Your task to perform on an android device: open sync settings in chrome Image 0: 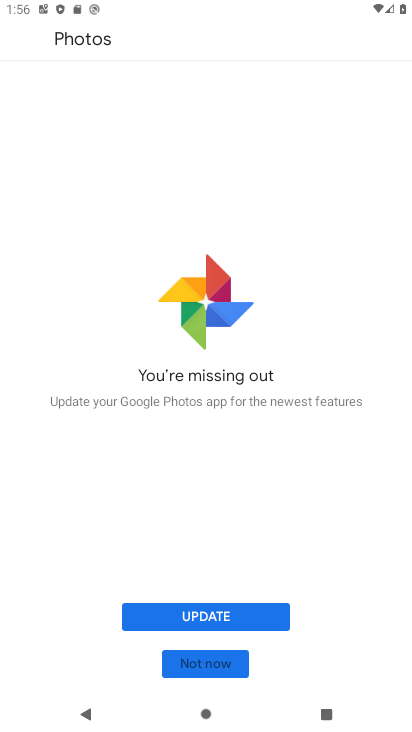
Step 0: press home button
Your task to perform on an android device: open sync settings in chrome Image 1: 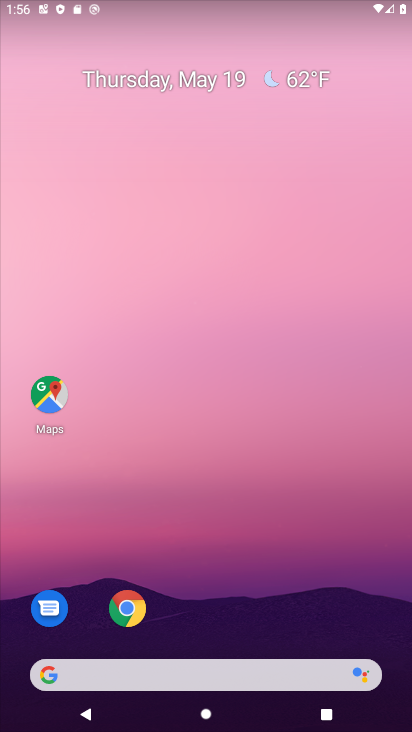
Step 1: click (128, 596)
Your task to perform on an android device: open sync settings in chrome Image 2: 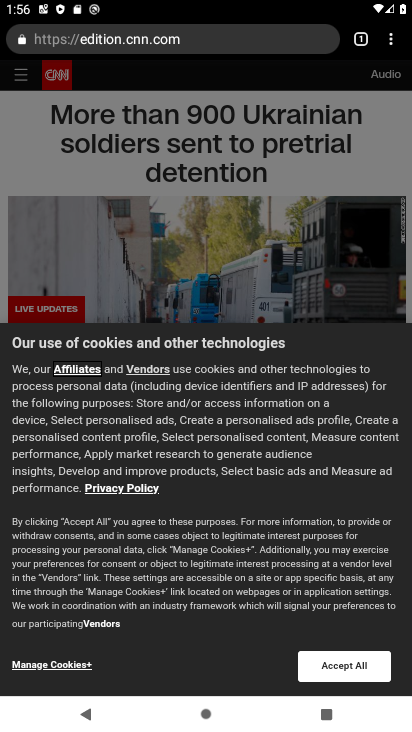
Step 2: click (394, 42)
Your task to perform on an android device: open sync settings in chrome Image 3: 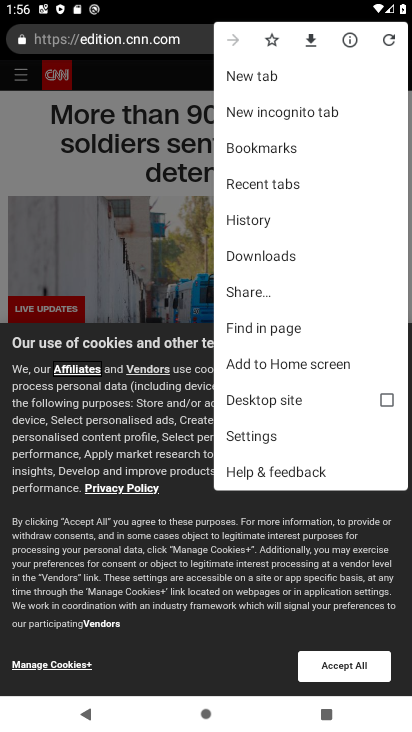
Step 3: click (251, 423)
Your task to perform on an android device: open sync settings in chrome Image 4: 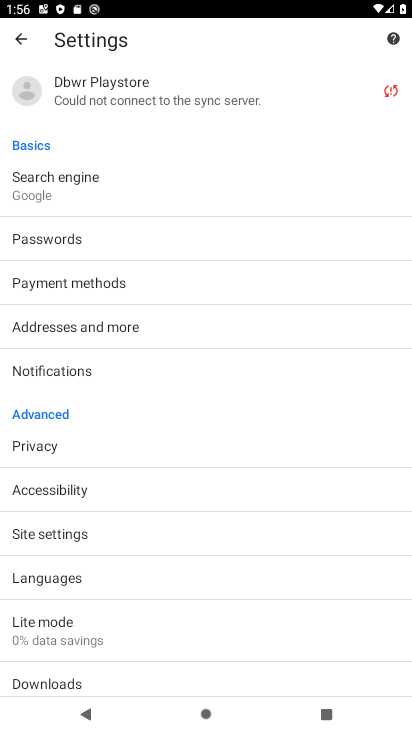
Step 4: drag from (156, 507) to (156, 411)
Your task to perform on an android device: open sync settings in chrome Image 5: 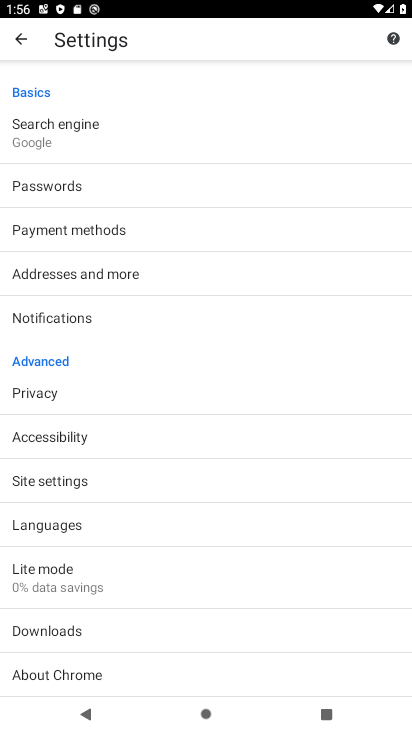
Step 5: drag from (179, 216) to (244, 692)
Your task to perform on an android device: open sync settings in chrome Image 6: 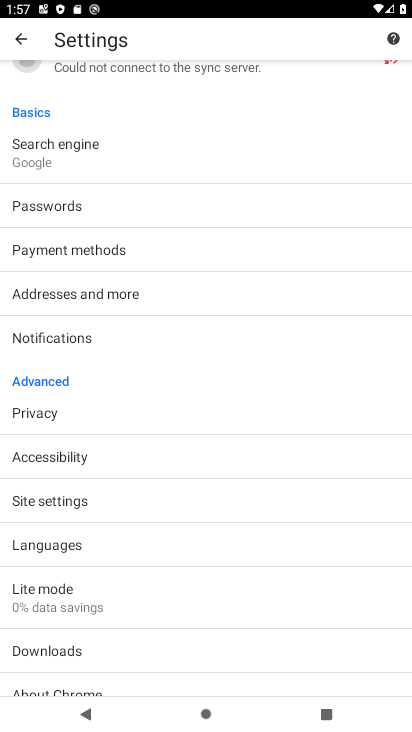
Step 6: click (190, 92)
Your task to perform on an android device: open sync settings in chrome Image 7: 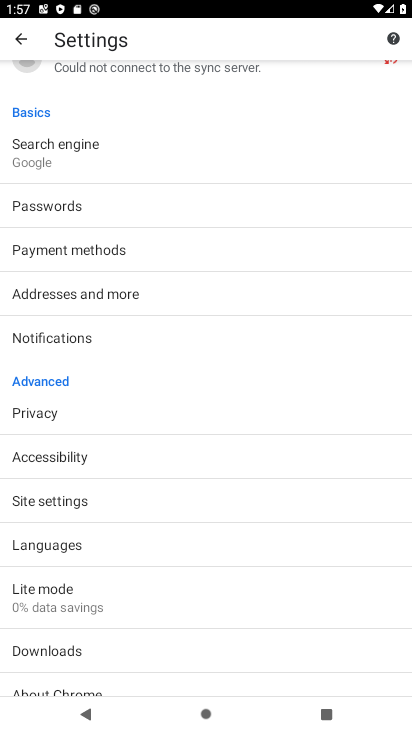
Step 7: task complete